Your task to perform on an android device: Turn on the flashlight Image 0: 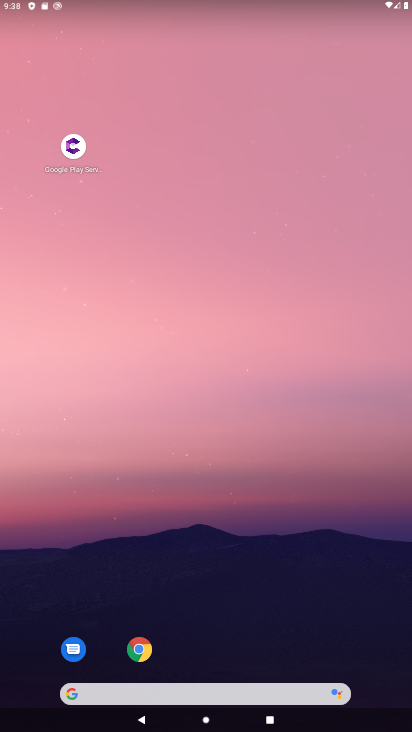
Step 0: drag from (211, 731) to (191, 100)
Your task to perform on an android device: Turn on the flashlight Image 1: 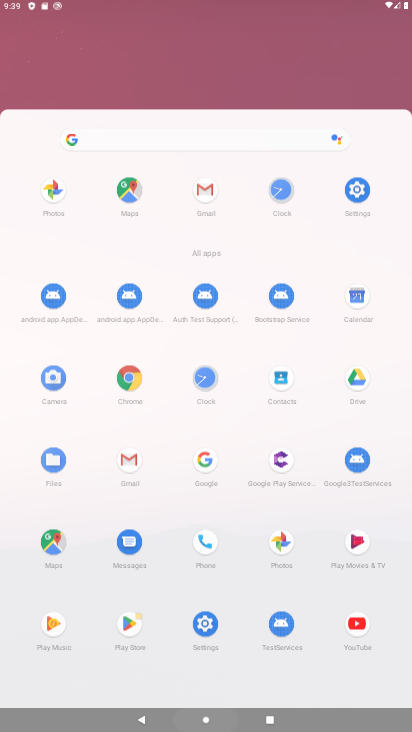
Step 1: task complete